Your task to perform on an android device: turn off picture-in-picture Image 0: 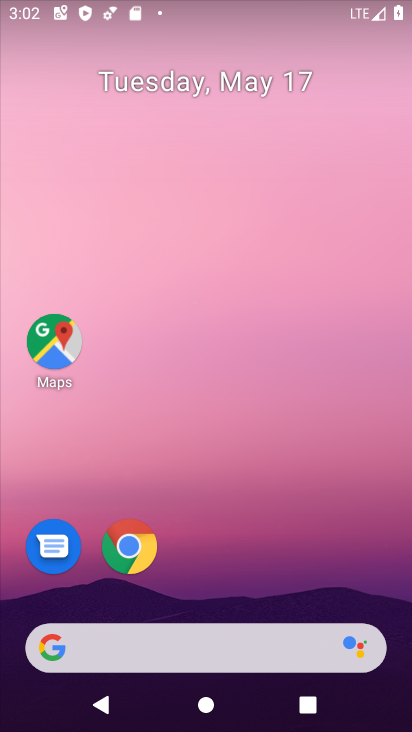
Step 0: press home button
Your task to perform on an android device: turn off picture-in-picture Image 1: 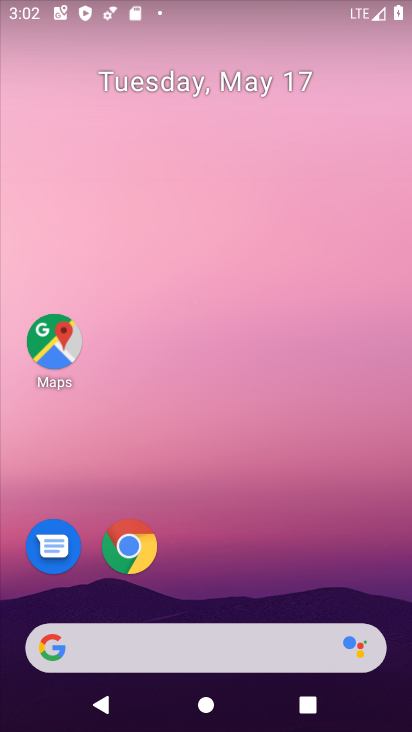
Step 1: click (127, 520)
Your task to perform on an android device: turn off picture-in-picture Image 2: 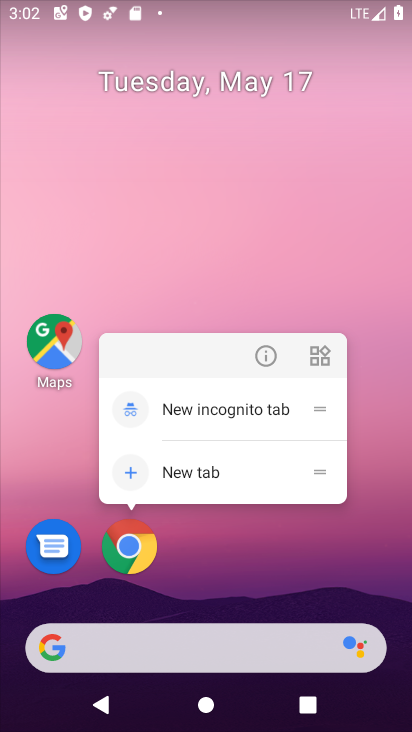
Step 2: click (271, 359)
Your task to perform on an android device: turn off picture-in-picture Image 3: 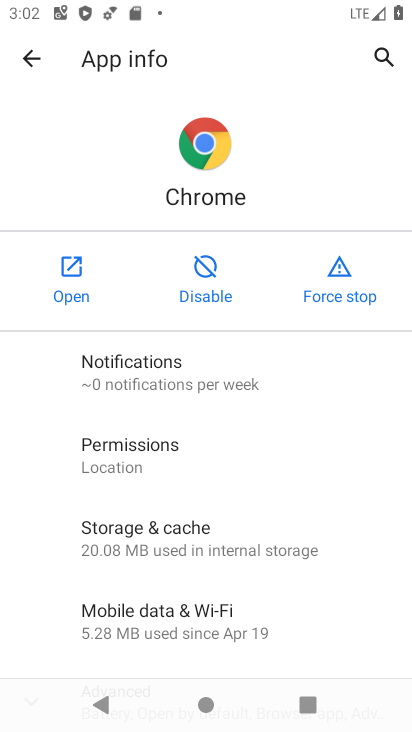
Step 3: drag from (98, 489) to (165, 169)
Your task to perform on an android device: turn off picture-in-picture Image 4: 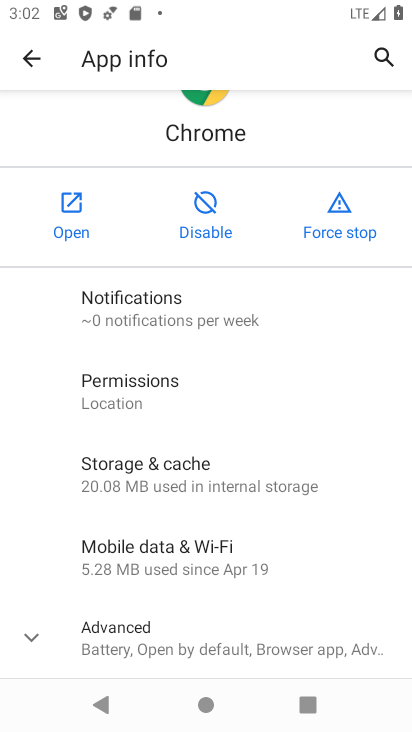
Step 4: drag from (184, 607) to (204, 225)
Your task to perform on an android device: turn off picture-in-picture Image 5: 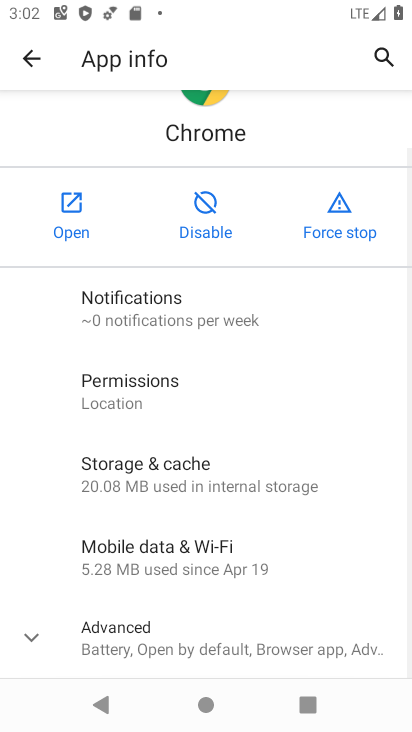
Step 5: click (52, 631)
Your task to perform on an android device: turn off picture-in-picture Image 6: 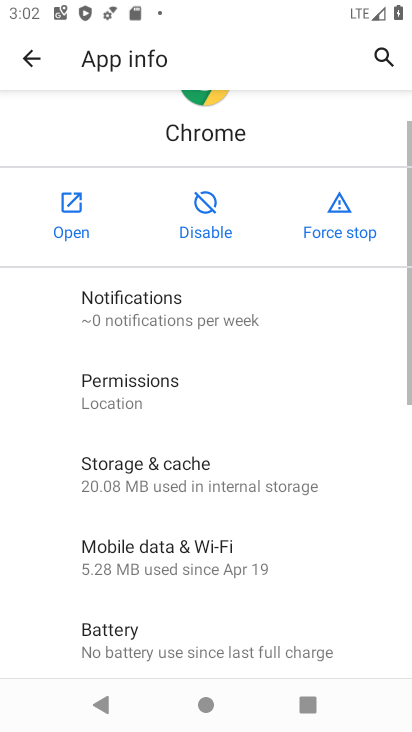
Step 6: drag from (189, 611) to (151, 135)
Your task to perform on an android device: turn off picture-in-picture Image 7: 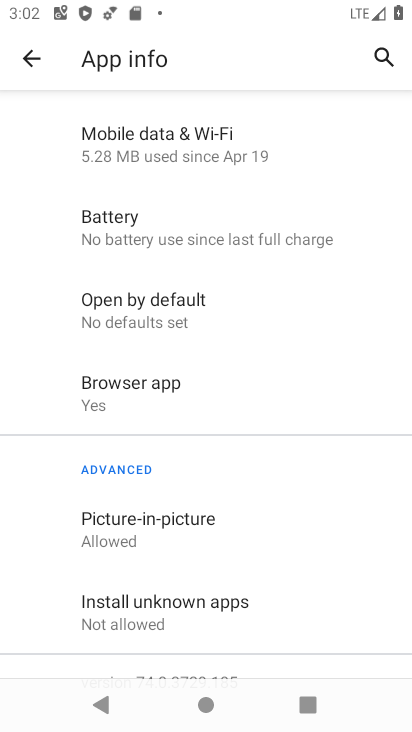
Step 7: click (137, 521)
Your task to perform on an android device: turn off picture-in-picture Image 8: 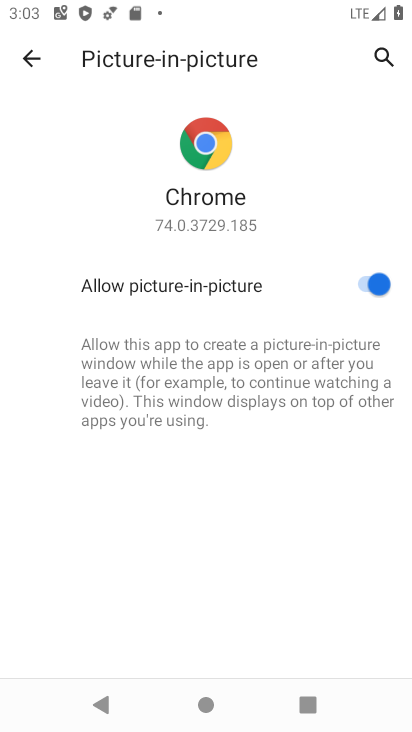
Step 8: click (347, 282)
Your task to perform on an android device: turn off picture-in-picture Image 9: 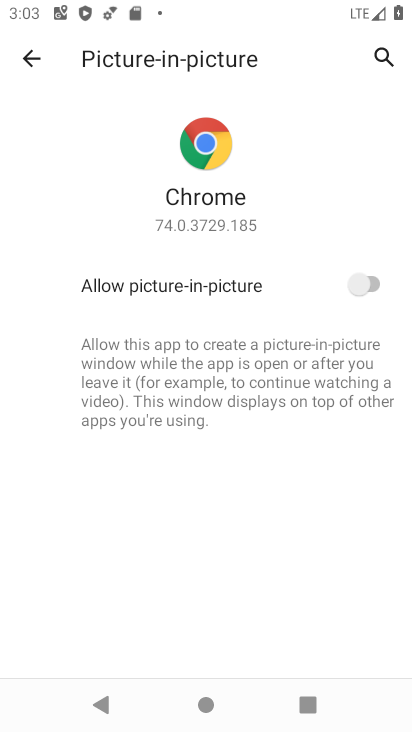
Step 9: task complete